Your task to perform on an android device: What's on my calendar today? Image 0: 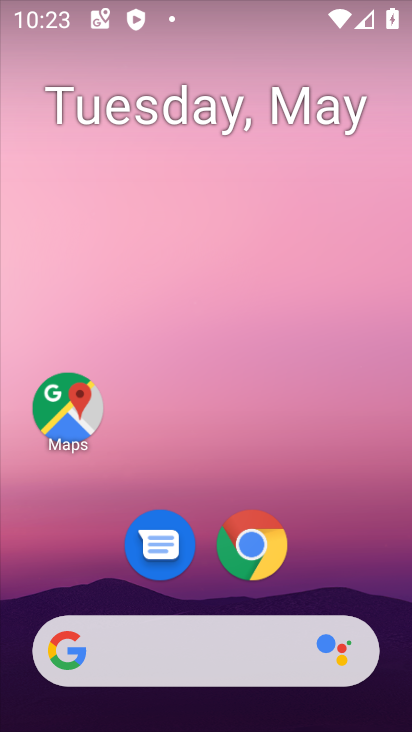
Step 0: drag from (251, 592) to (225, 0)
Your task to perform on an android device: What's on my calendar today? Image 1: 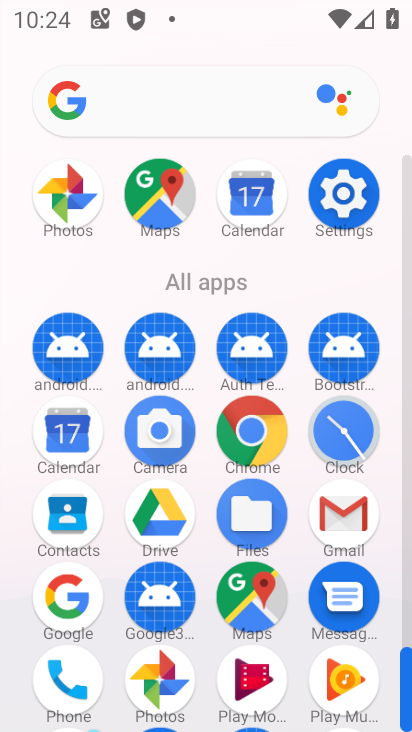
Step 1: drag from (249, 539) to (251, 376)
Your task to perform on an android device: What's on my calendar today? Image 2: 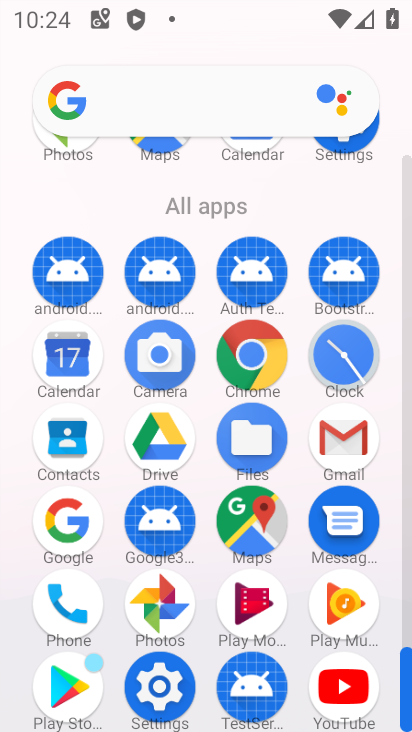
Step 2: click (84, 372)
Your task to perform on an android device: What's on my calendar today? Image 3: 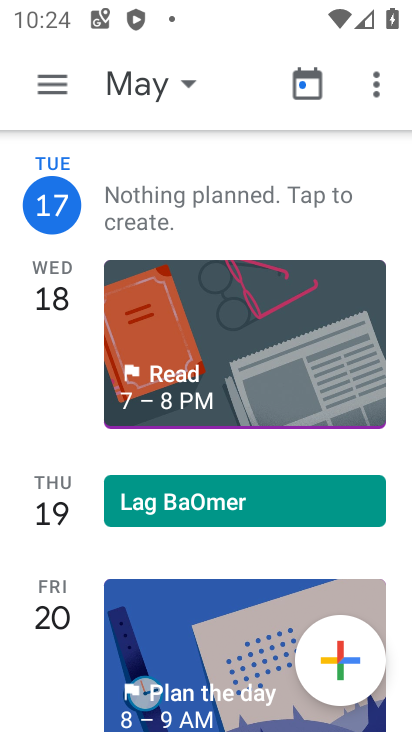
Step 3: task complete